Your task to perform on an android device: Open the calendar app, open the side menu, and click the "Day" option Image 0: 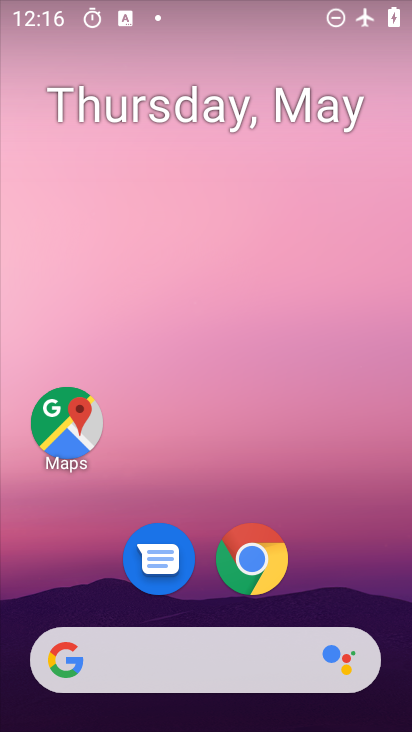
Step 0: drag from (201, 615) to (256, 218)
Your task to perform on an android device: Open the calendar app, open the side menu, and click the "Day" option Image 1: 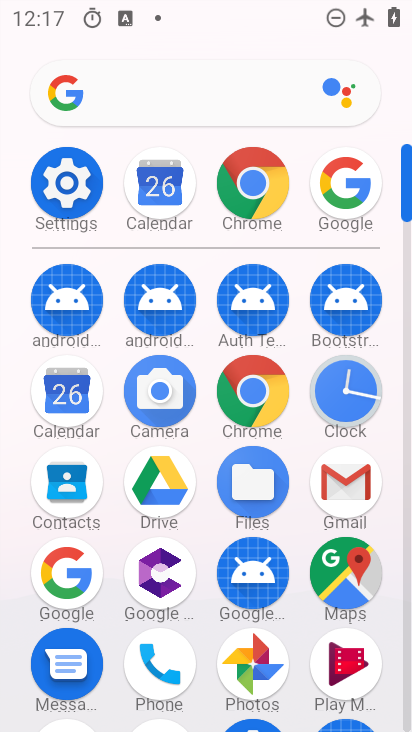
Step 1: click (80, 374)
Your task to perform on an android device: Open the calendar app, open the side menu, and click the "Day" option Image 2: 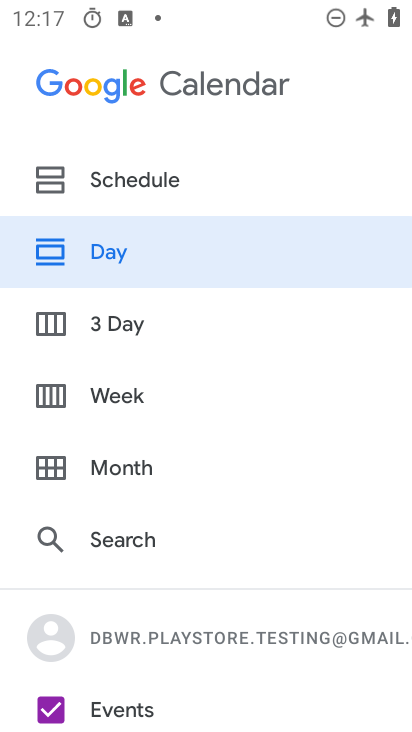
Step 2: task complete